Your task to perform on an android device: open a bookmark in the chrome app Image 0: 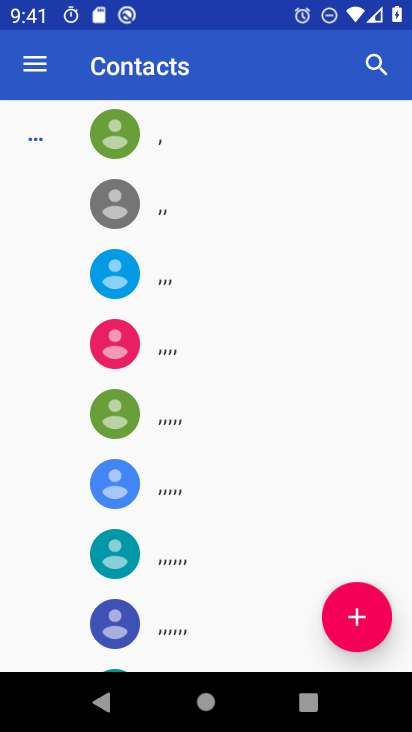
Step 0: press home button
Your task to perform on an android device: open a bookmark in the chrome app Image 1: 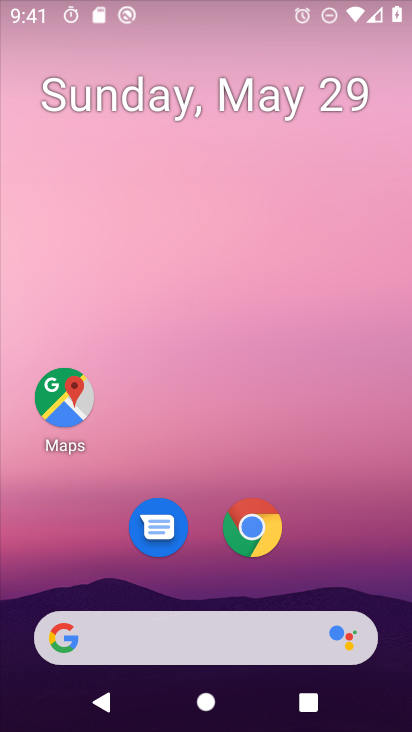
Step 1: drag from (384, 625) to (321, 65)
Your task to perform on an android device: open a bookmark in the chrome app Image 2: 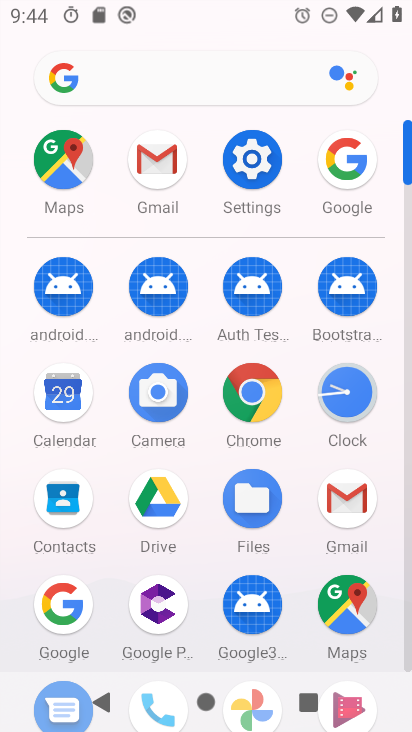
Step 2: click (272, 401)
Your task to perform on an android device: open a bookmark in the chrome app Image 3: 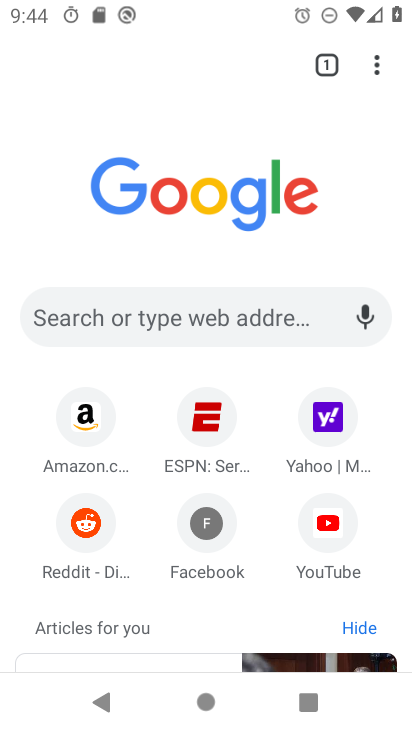
Step 3: click (378, 54)
Your task to perform on an android device: open a bookmark in the chrome app Image 4: 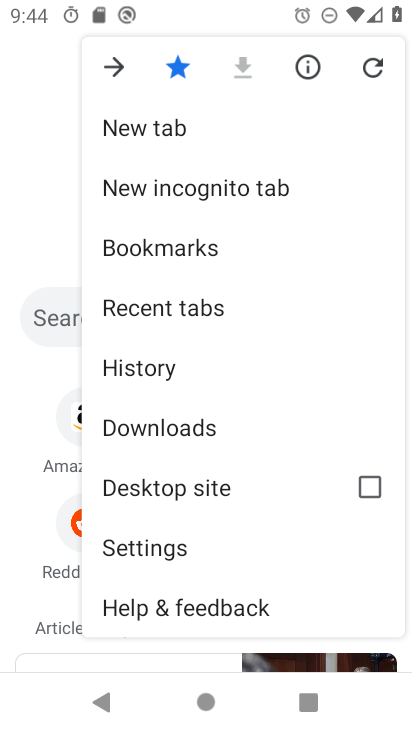
Step 4: click (213, 260)
Your task to perform on an android device: open a bookmark in the chrome app Image 5: 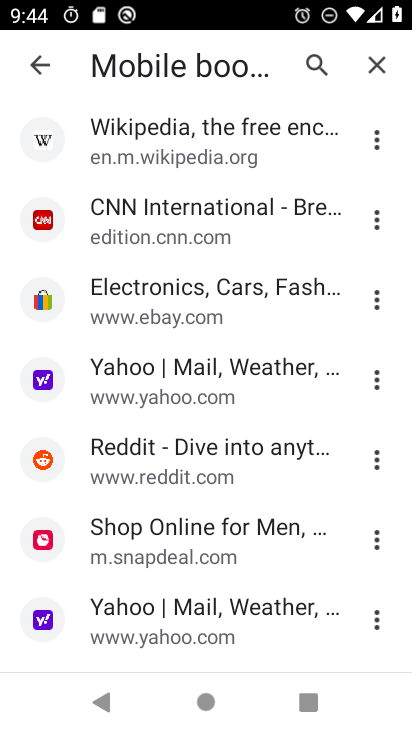
Step 5: task complete